Your task to perform on an android device: turn on showing notifications on the lock screen Image 0: 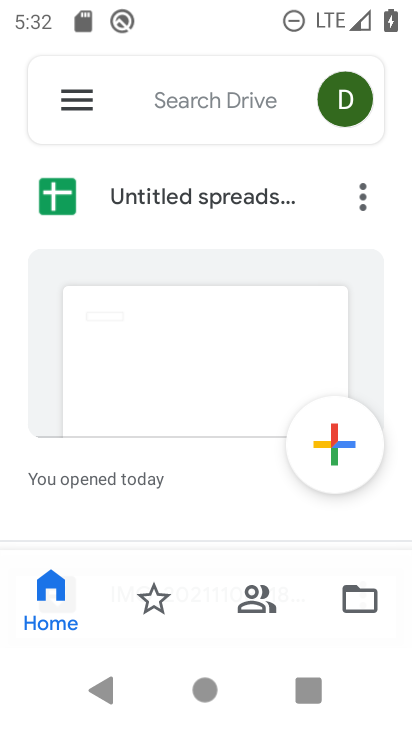
Step 0: press home button
Your task to perform on an android device: turn on showing notifications on the lock screen Image 1: 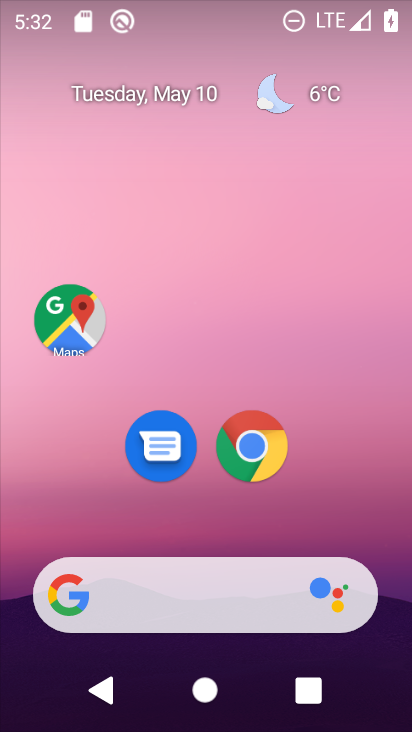
Step 1: drag from (283, 527) to (226, 132)
Your task to perform on an android device: turn on showing notifications on the lock screen Image 2: 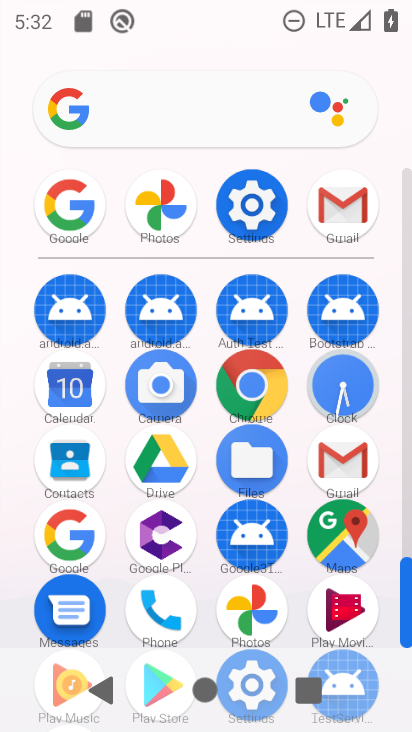
Step 2: click (252, 199)
Your task to perform on an android device: turn on showing notifications on the lock screen Image 3: 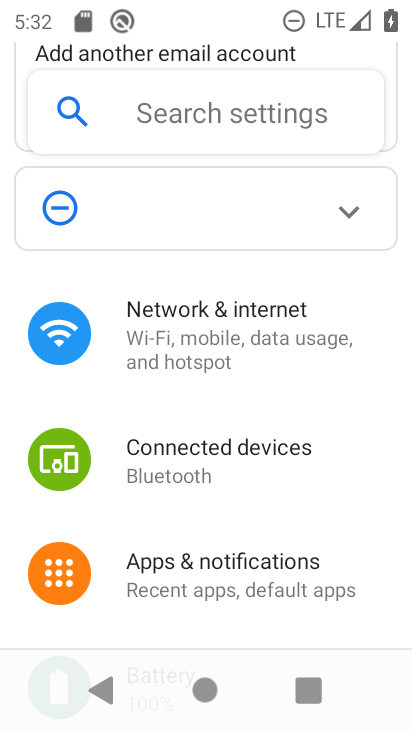
Step 3: click (216, 568)
Your task to perform on an android device: turn on showing notifications on the lock screen Image 4: 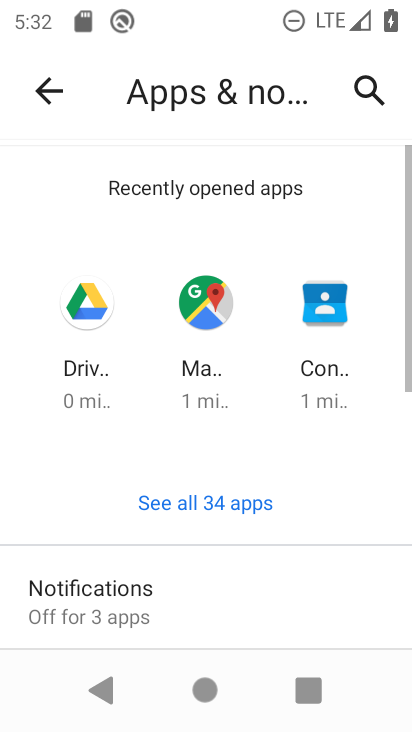
Step 4: click (137, 582)
Your task to perform on an android device: turn on showing notifications on the lock screen Image 5: 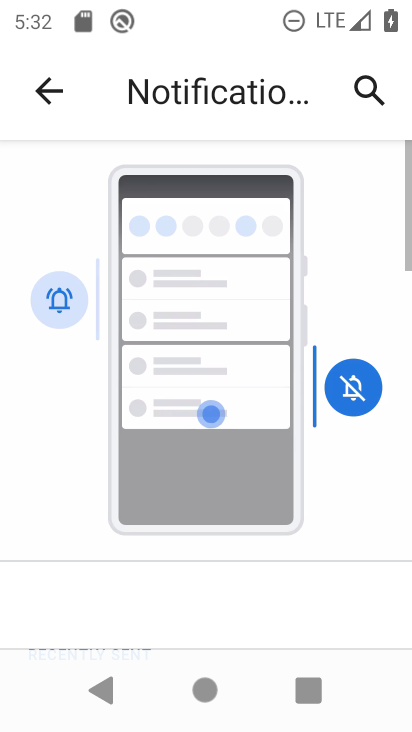
Step 5: drag from (218, 587) to (248, 196)
Your task to perform on an android device: turn on showing notifications on the lock screen Image 6: 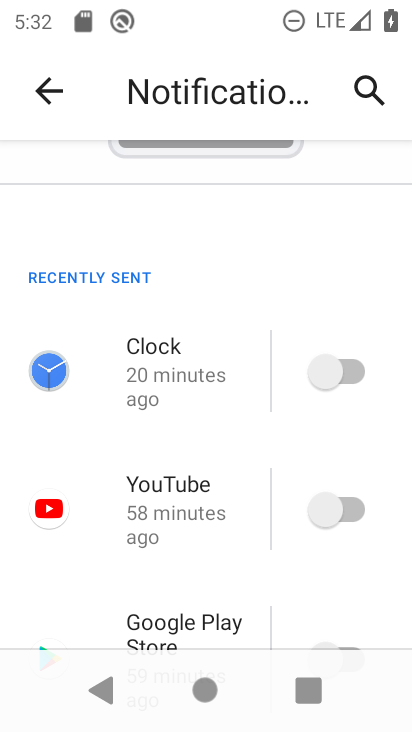
Step 6: drag from (189, 549) to (223, 209)
Your task to perform on an android device: turn on showing notifications on the lock screen Image 7: 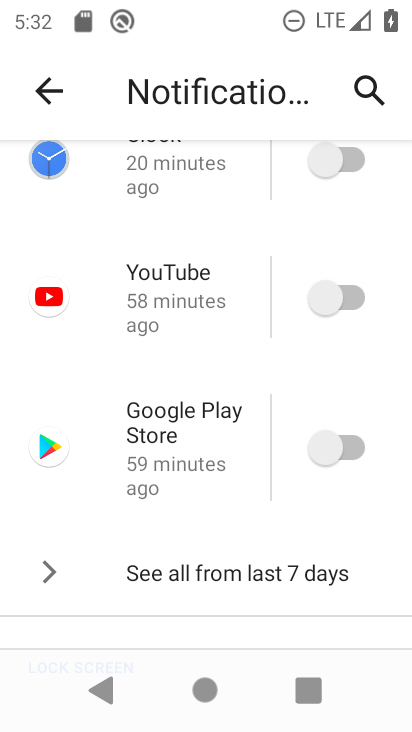
Step 7: drag from (224, 561) to (239, 208)
Your task to perform on an android device: turn on showing notifications on the lock screen Image 8: 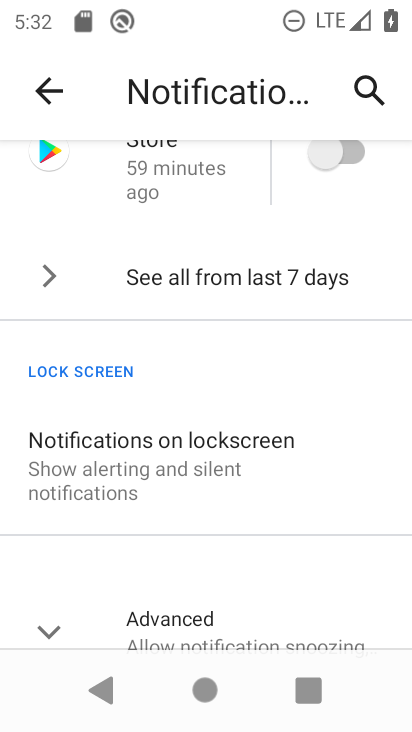
Step 8: click (189, 469)
Your task to perform on an android device: turn on showing notifications on the lock screen Image 9: 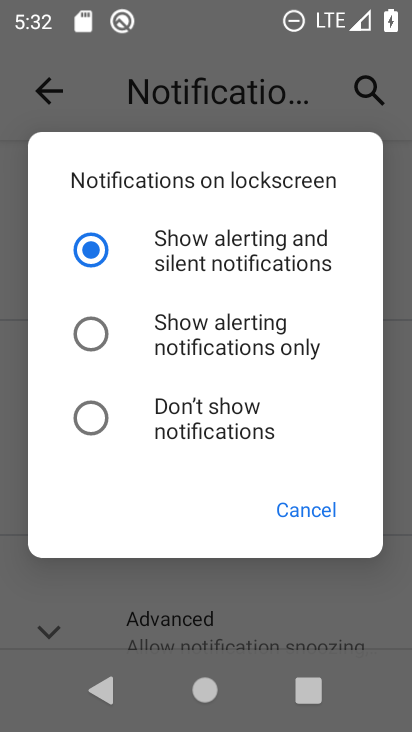
Step 9: task complete